Your task to perform on an android device: Open battery settings Image 0: 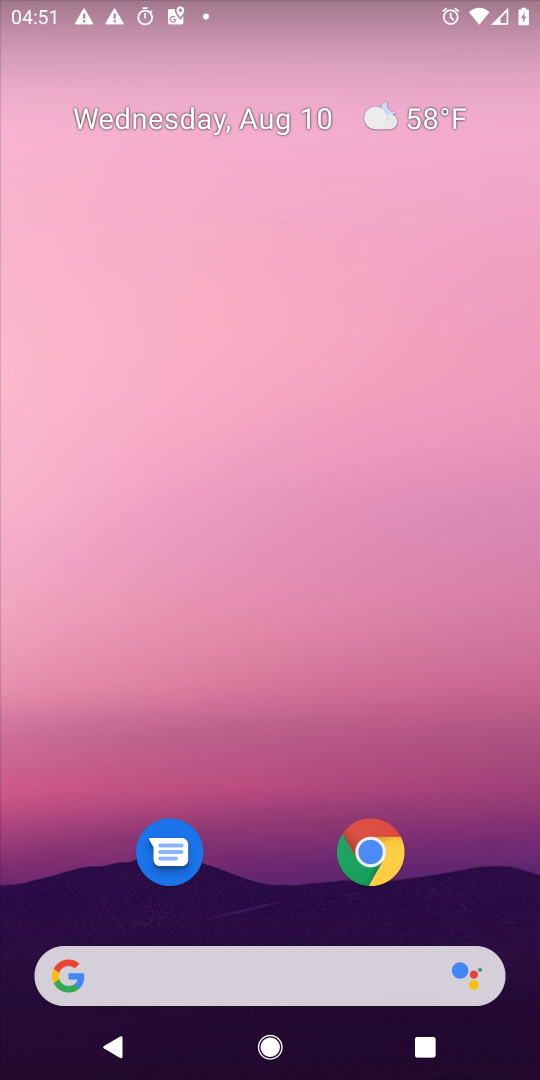
Step 0: drag from (257, 793) to (195, 49)
Your task to perform on an android device: Open battery settings Image 1: 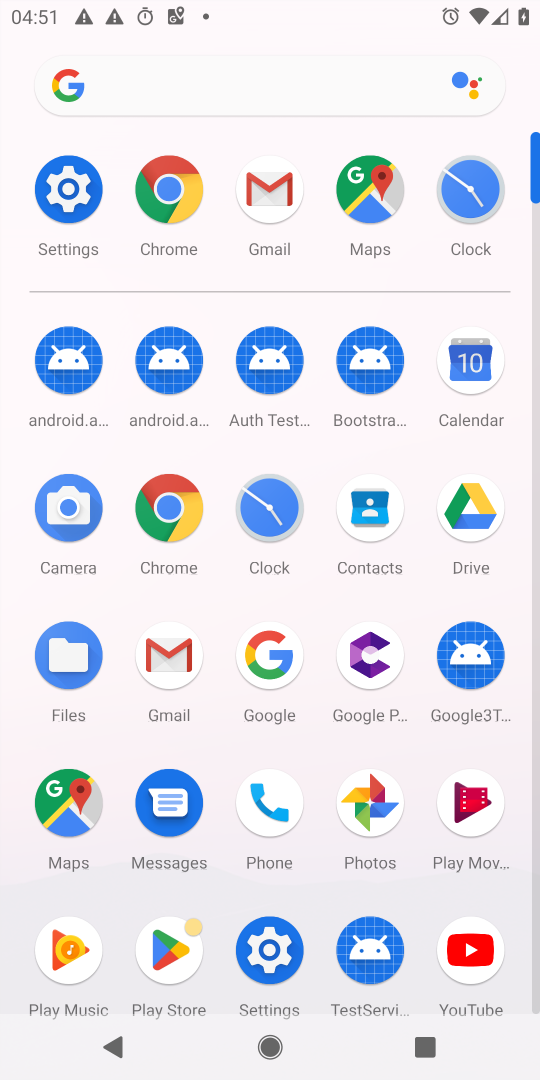
Step 1: click (264, 951)
Your task to perform on an android device: Open battery settings Image 2: 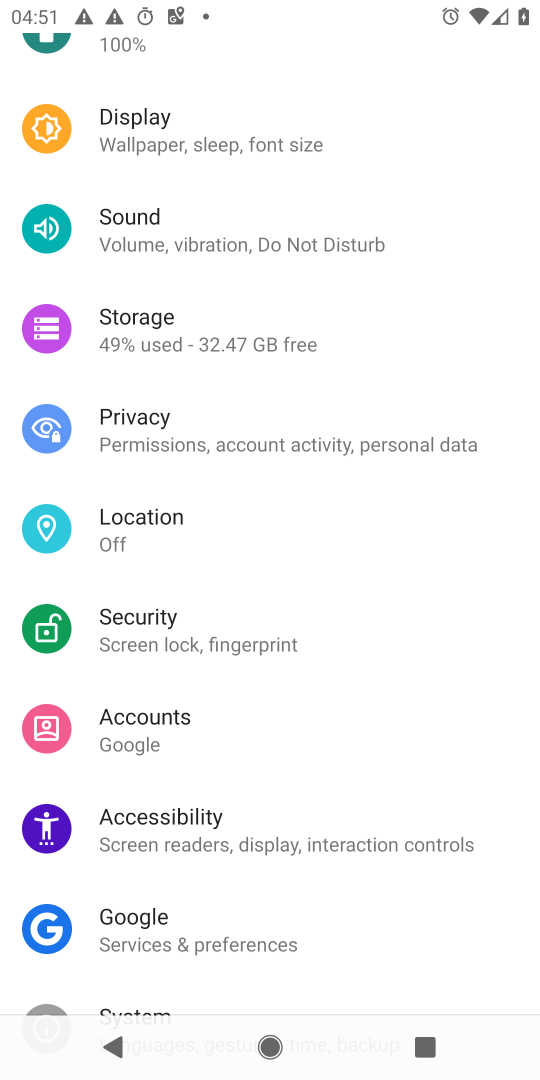
Step 2: drag from (380, 381) to (417, 804)
Your task to perform on an android device: Open battery settings Image 3: 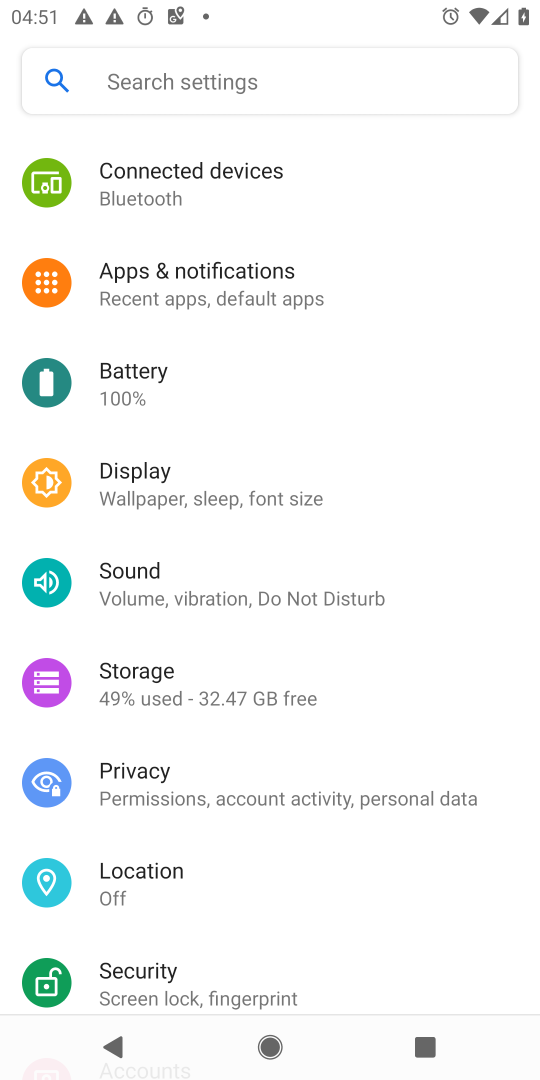
Step 3: click (166, 382)
Your task to perform on an android device: Open battery settings Image 4: 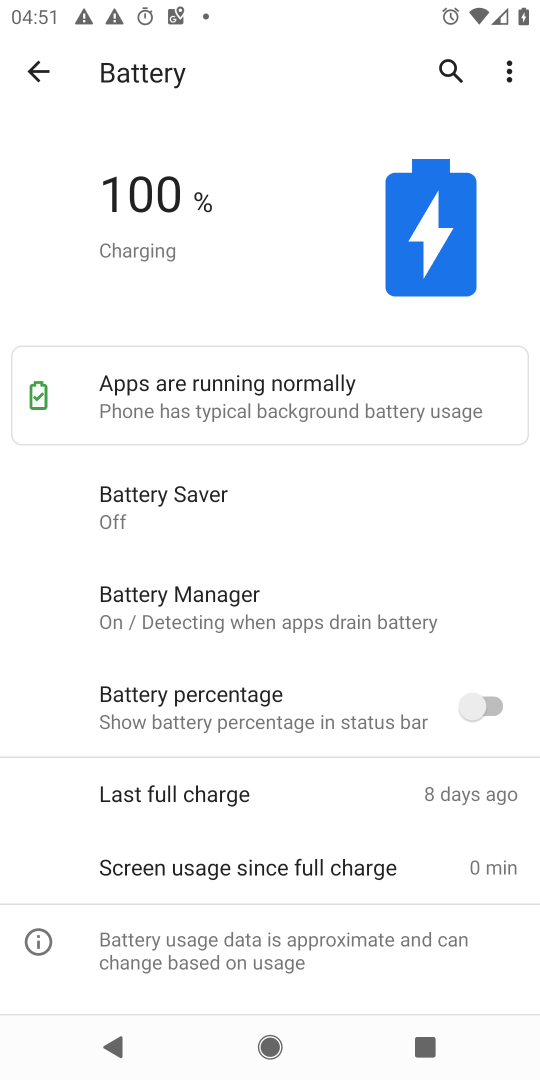
Step 4: task complete